Your task to perform on an android device: Open location settings Image 0: 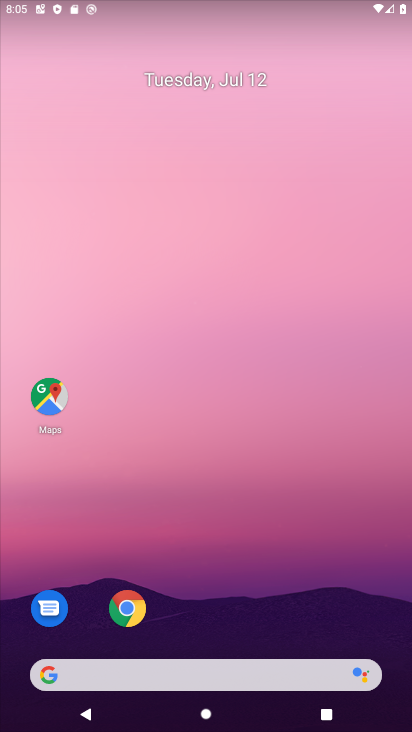
Step 0: drag from (256, 8) to (400, 513)
Your task to perform on an android device: Open location settings Image 1: 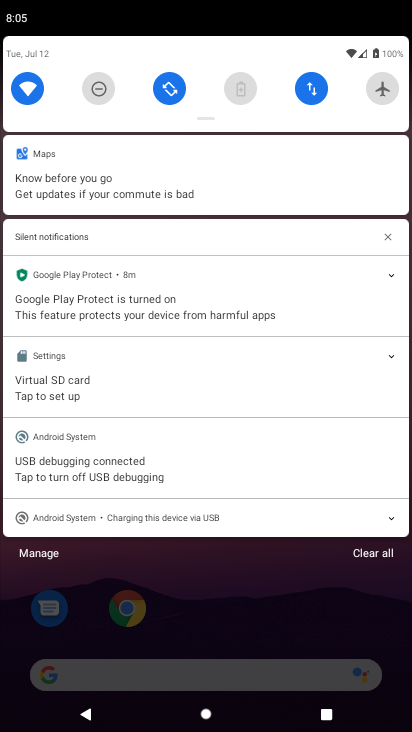
Step 1: drag from (215, 60) to (223, 600)
Your task to perform on an android device: Open location settings Image 2: 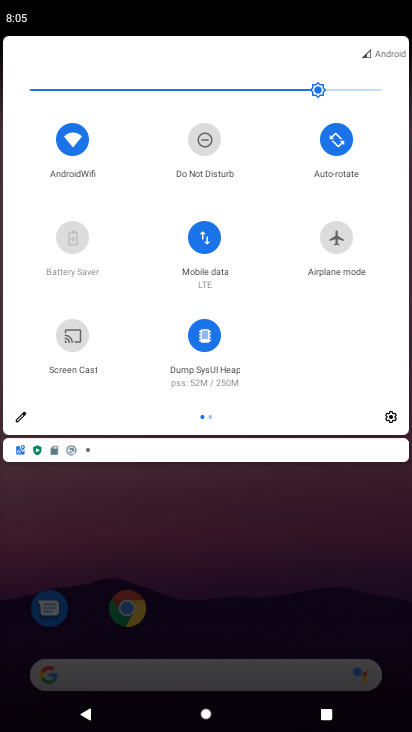
Step 2: click (389, 414)
Your task to perform on an android device: Open location settings Image 3: 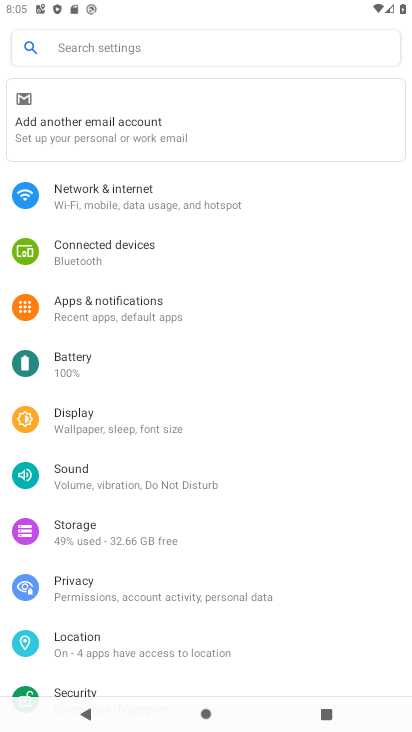
Step 3: click (82, 636)
Your task to perform on an android device: Open location settings Image 4: 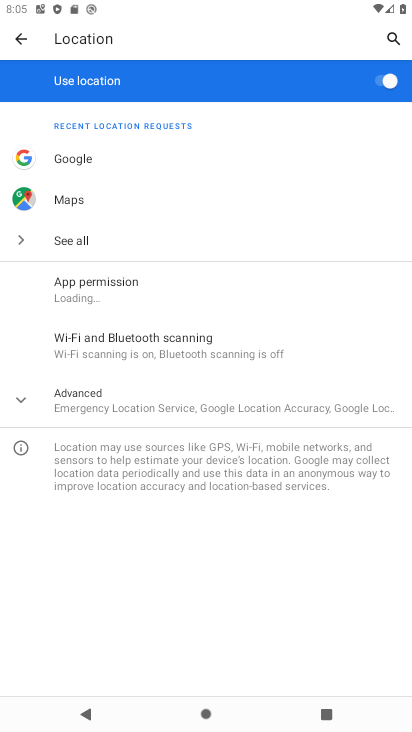
Step 4: task complete